Your task to perform on an android device: When is my next appointment? Image 0: 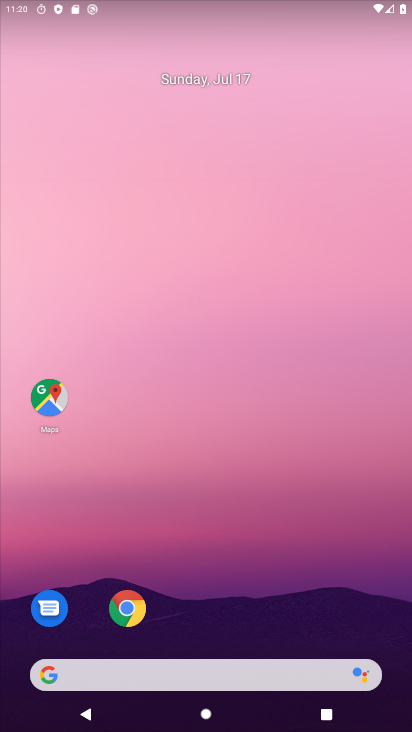
Step 0: drag from (246, 594) to (246, 5)
Your task to perform on an android device: When is my next appointment? Image 1: 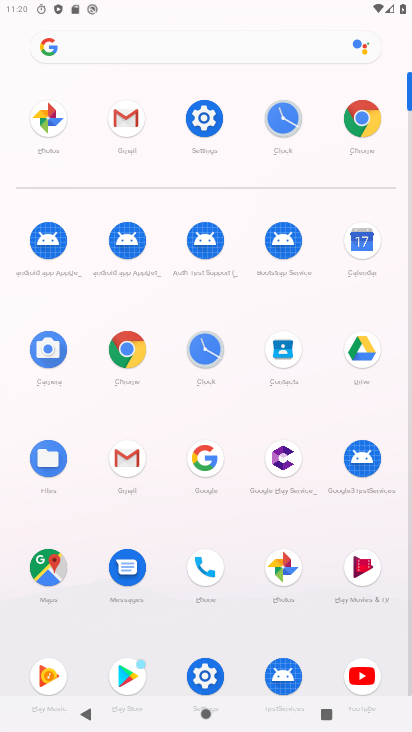
Step 1: click (354, 249)
Your task to perform on an android device: When is my next appointment? Image 2: 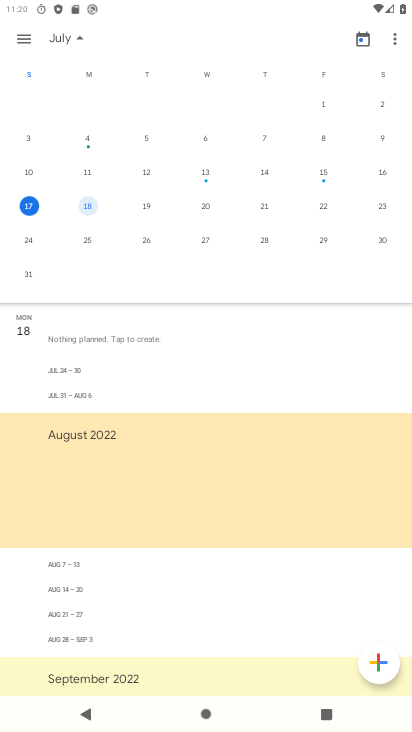
Step 2: click (33, 207)
Your task to perform on an android device: When is my next appointment? Image 3: 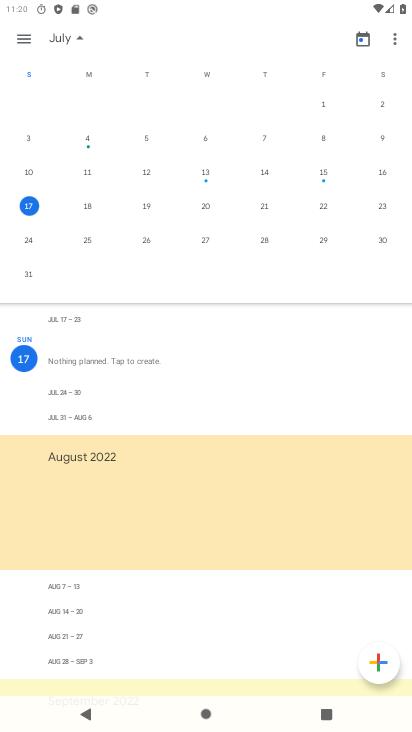
Step 3: click (193, 316)
Your task to perform on an android device: When is my next appointment? Image 4: 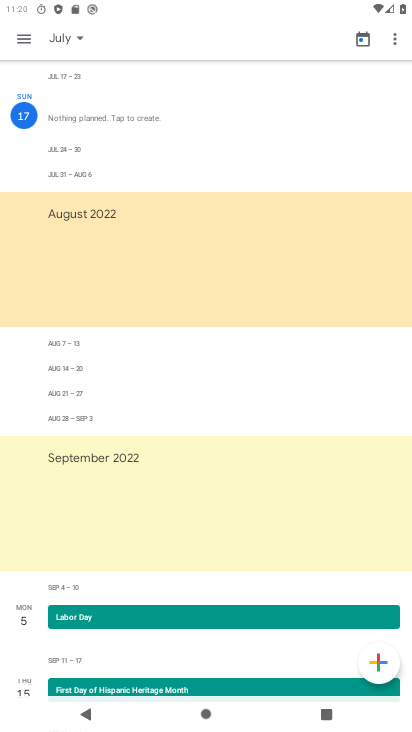
Step 4: task complete